Your task to perform on an android device: turn on data saver in the chrome app Image 0: 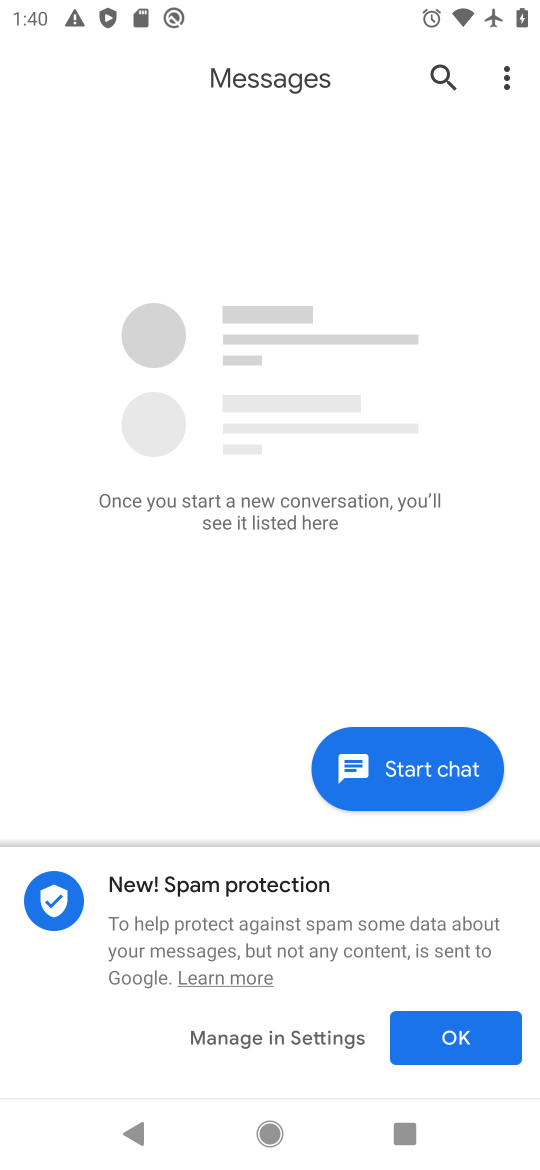
Step 0: press home button
Your task to perform on an android device: turn on data saver in the chrome app Image 1: 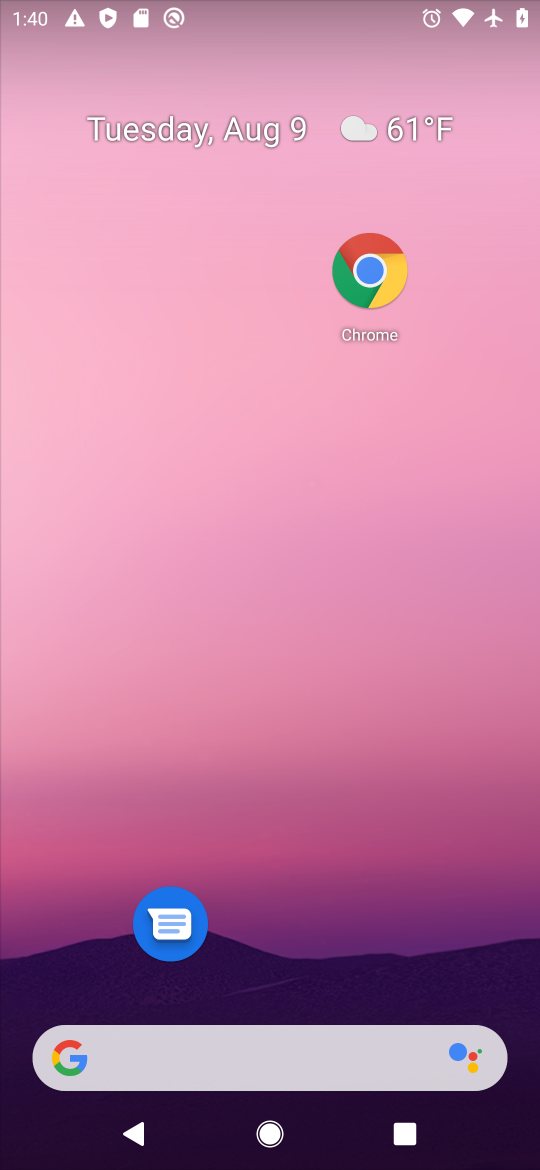
Step 1: drag from (331, 991) to (238, 9)
Your task to perform on an android device: turn on data saver in the chrome app Image 2: 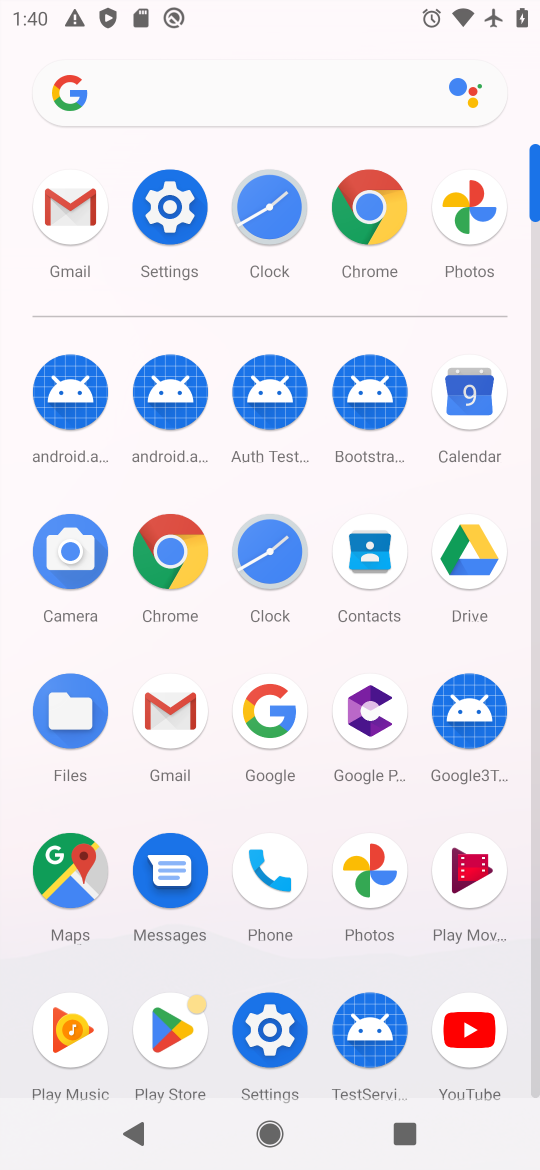
Step 2: click (353, 234)
Your task to perform on an android device: turn on data saver in the chrome app Image 3: 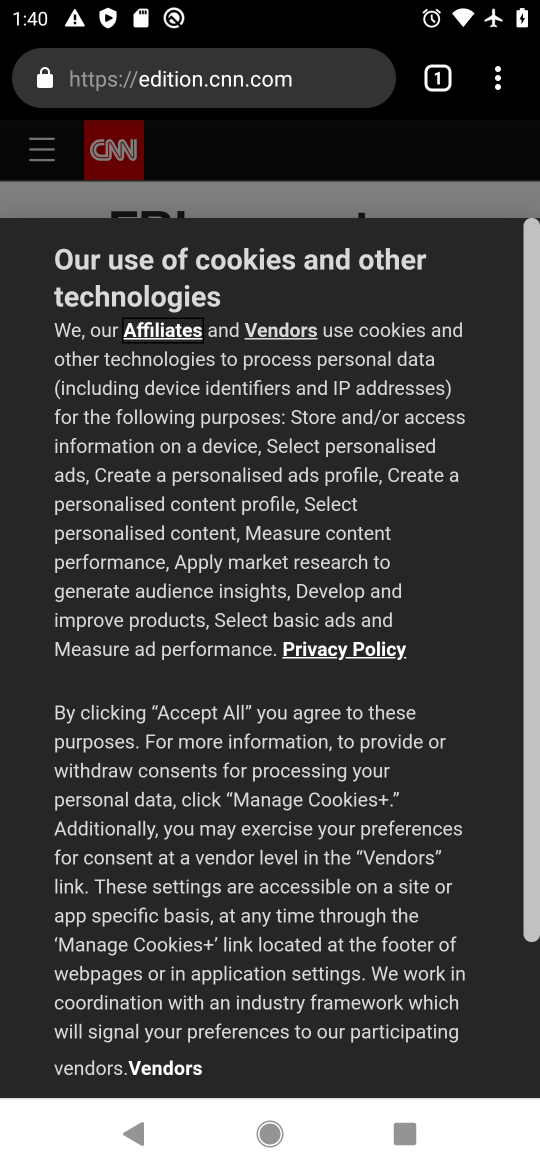
Step 3: click (521, 95)
Your task to perform on an android device: turn on data saver in the chrome app Image 4: 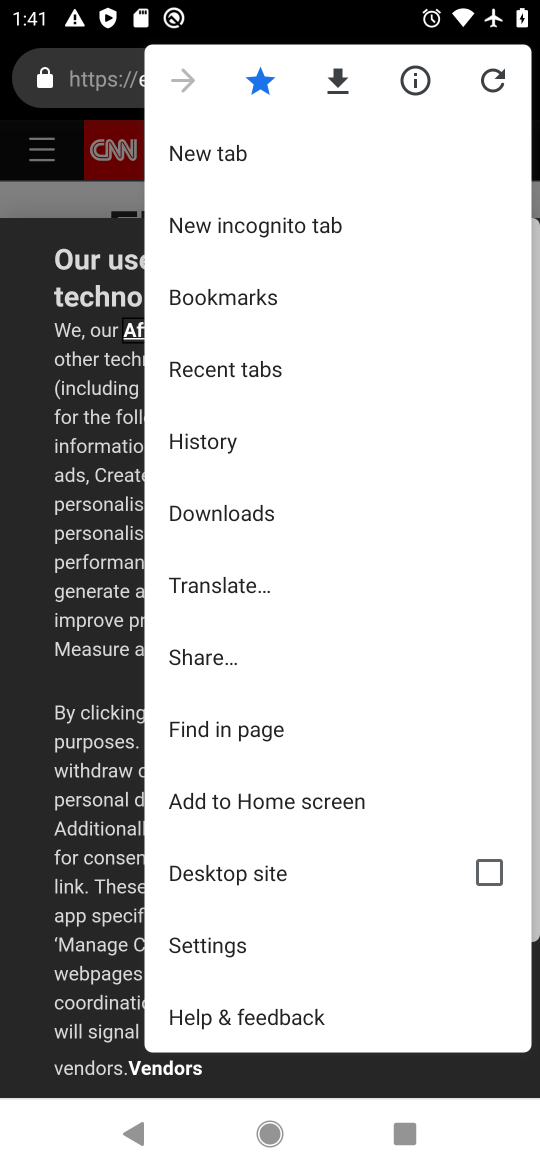
Step 4: click (234, 959)
Your task to perform on an android device: turn on data saver in the chrome app Image 5: 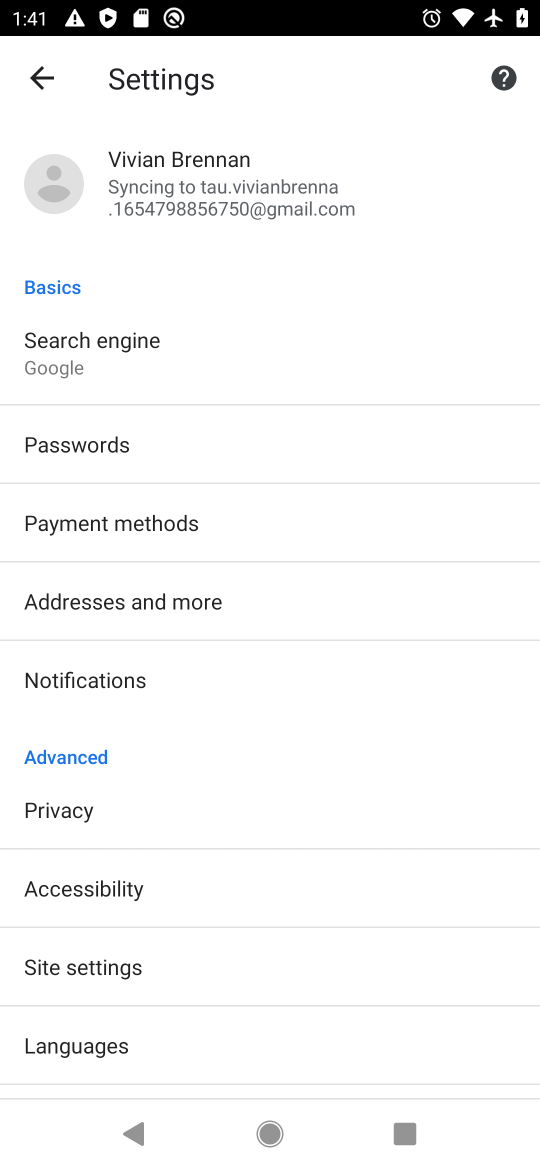
Step 5: task complete